Your task to perform on an android device: Go to display settings Image 0: 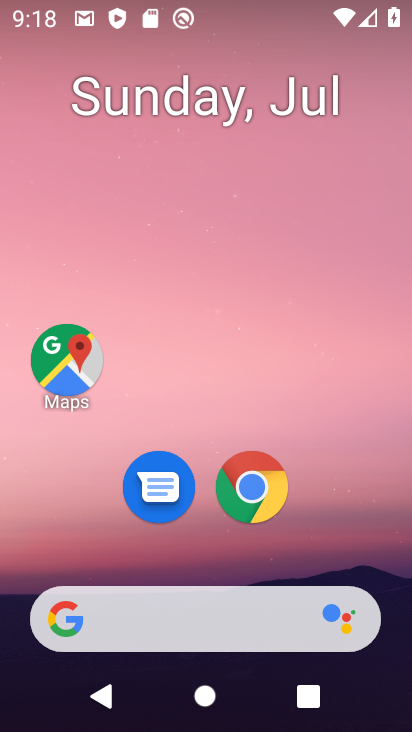
Step 0: drag from (231, 413) to (242, 11)
Your task to perform on an android device: Go to display settings Image 1: 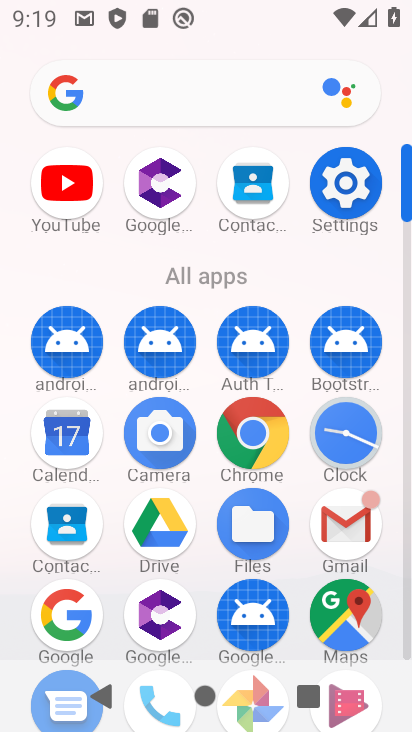
Step 1: click (326, 183)
Your task to perform on an android device: Go to display settings Image 2: 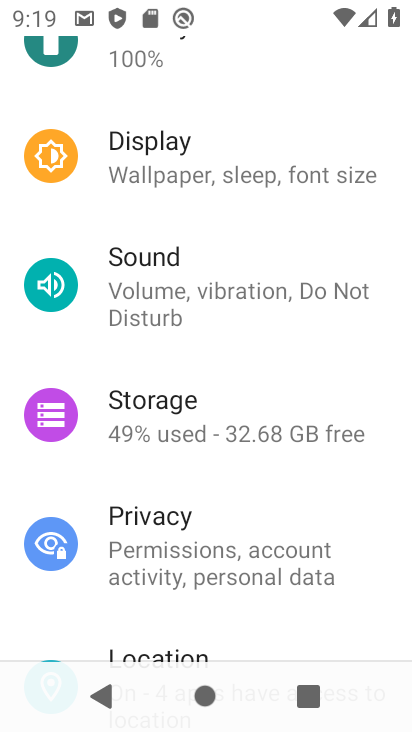
Step 2: click (257, 172)
Your task to perform on an android device: Go to display settings Image 3: 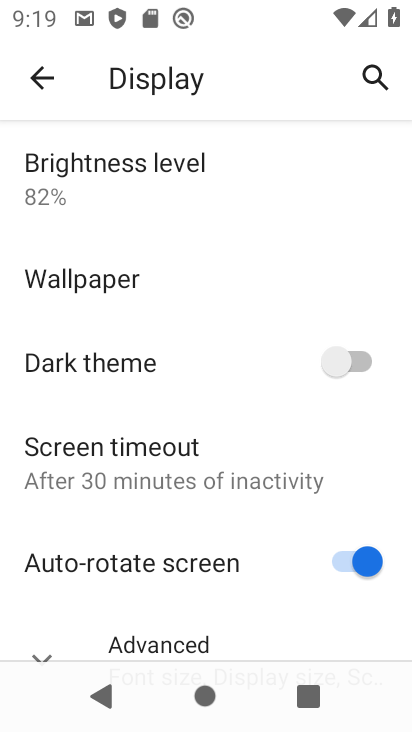
Step 3: task complete